Your task to perform on an android device: open app "Messages" (install if not already installed) Image 0: 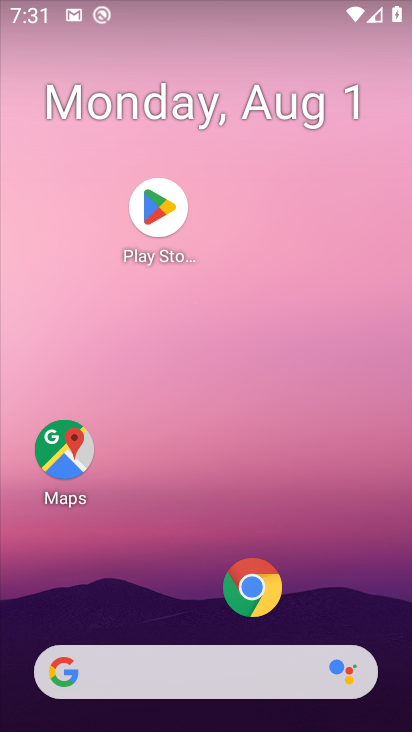
Step 0: drag from (151, 641) to (166, 96)
Your task to perform on an android device: open app "Messages" (install if not already installed) Image 1: 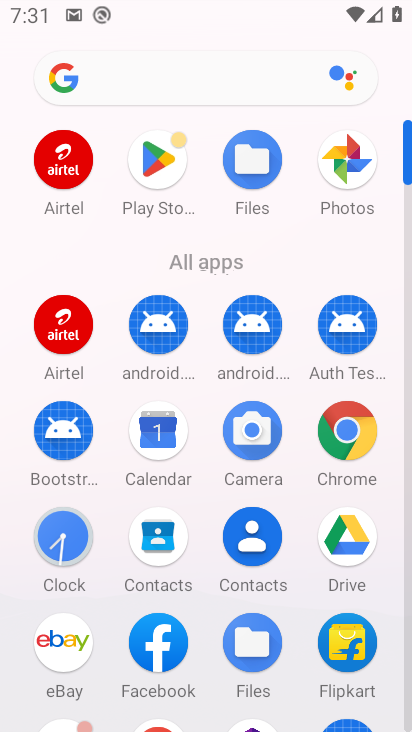
Step 1: click (406, 729)
Your task to perform on an android device: open app "Messages" (install if not already installed) Image 2: 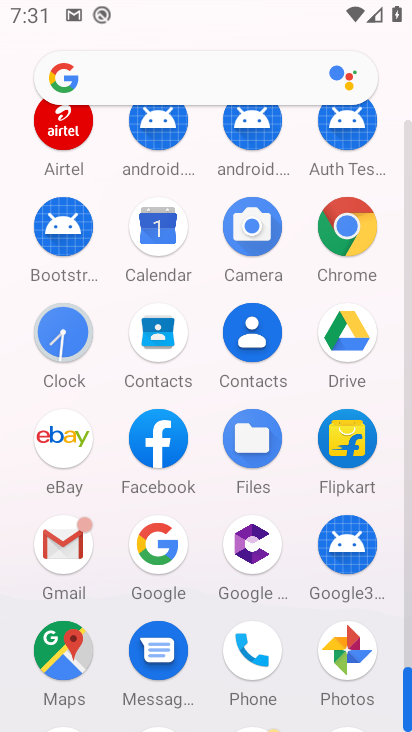
Step 2: click (159, 663)
Your task to perform on an android device: open app "Messages" (install if not already installed) Image 3: 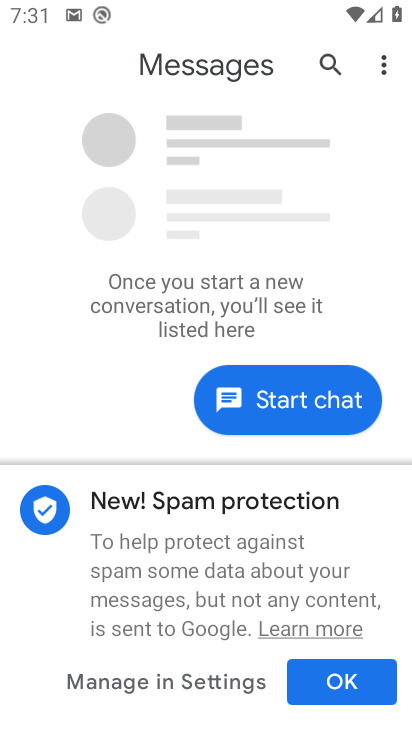
Step 3: task complete